Your task to perform on an android device: Open Chrome and go to the settings page Image 0: 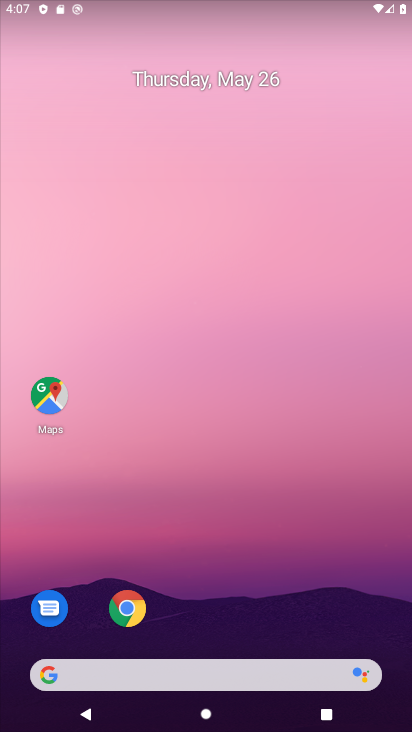
Step 0: click (133, 620)
Your task to perform on an android device: Open Chrome and go to the settings page Image 1: 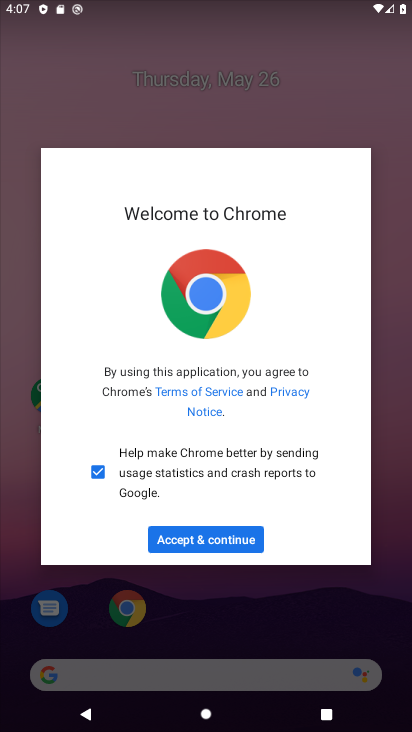
Step 1: click (247, 529)
Your task to perform on an android device: Open Chrome and go to the settings page Image 2: 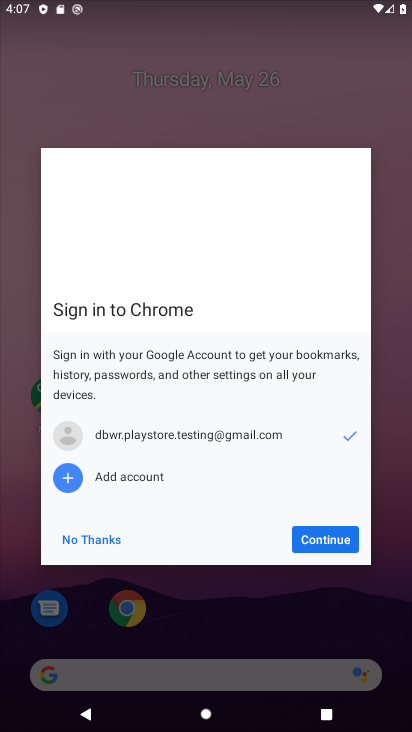
Step 2: click (352, 537)
Your task to perform on an android device: Open Chrome and go to the settings page Image 3: 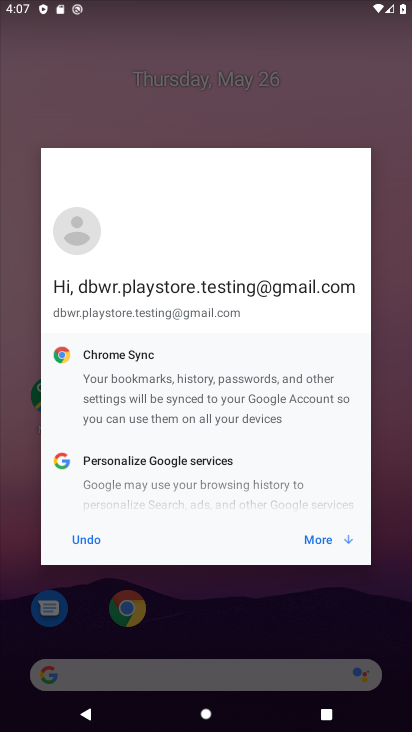
Step 3: click (335, 539)
Your task to perform on an android device: Open Chrome and go to the settings page Image 4: 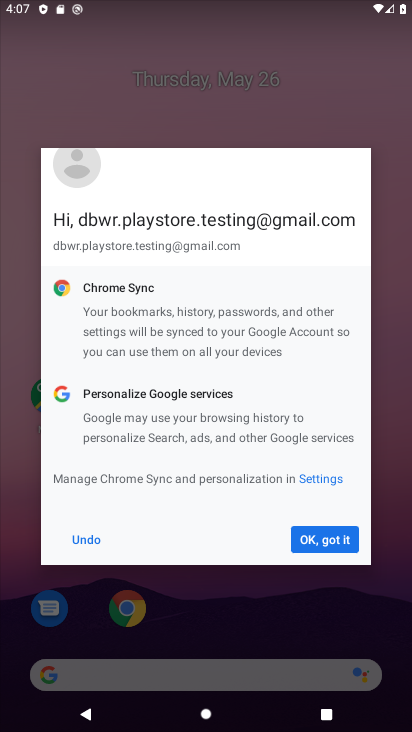
Step 4: click (335, 539)
Your task to perform on an android device: Open Chrome and go to the settings page Image 5: 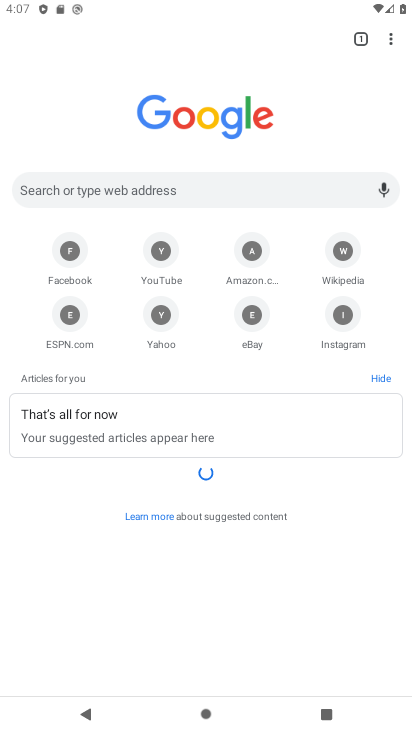
Step 5: task complete